Your task to perform on an android device: Open accessibility settings Image 0: 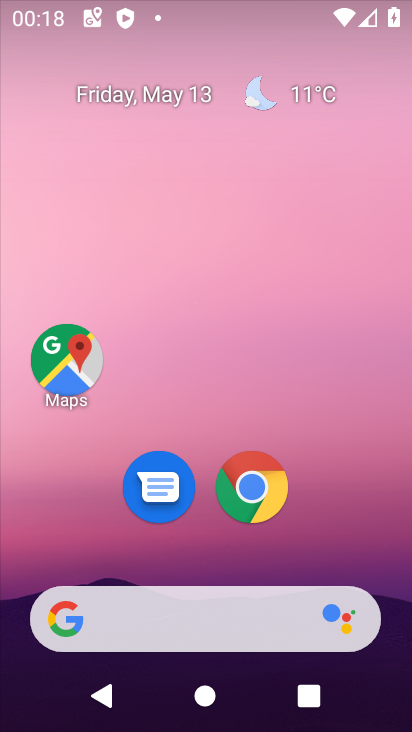
Step 0: click (253, 491)
Your task to perform on an android device: Open accessibility settings Image 1: 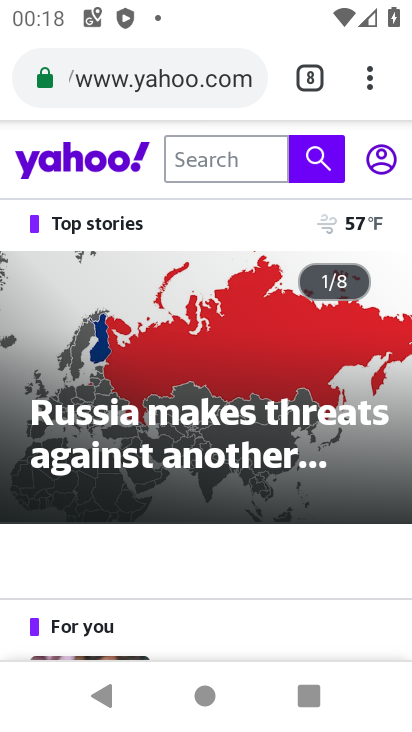
Step 1: press home button
Your task to perform on an android device: Open accessibility settings Image 2: 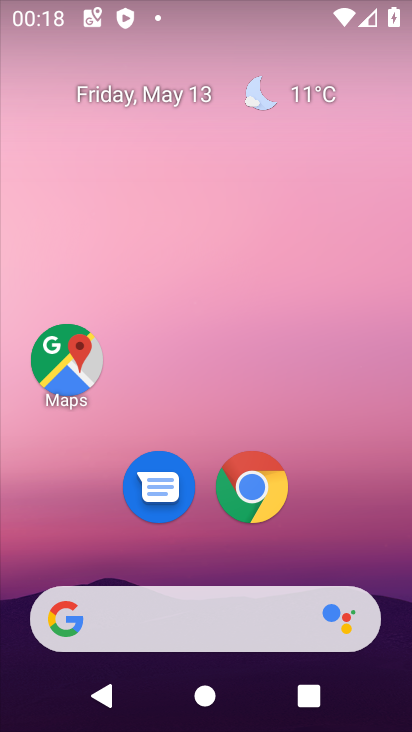
Step 2: drag from (186, 558) to (222, 35)
Your task to perform on an android device: Open accessibility settings Image 3: 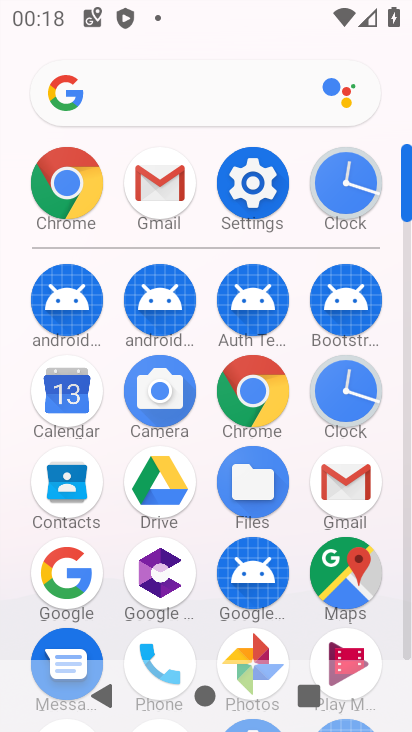
Step 3: click (257, 164)
Your task to perform on an android device: Open accessibility settings Image 4: 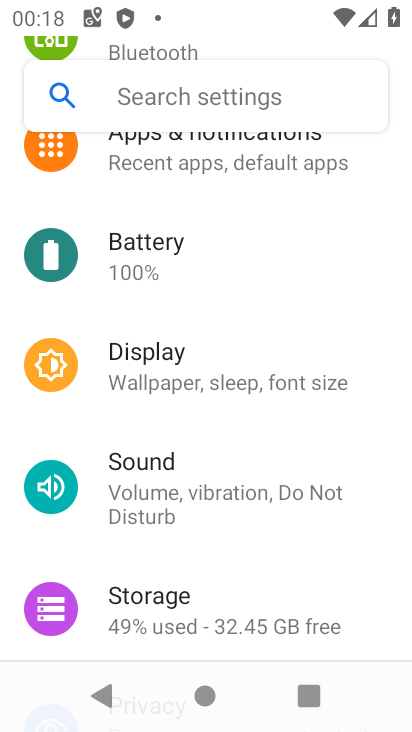
Step 4: drag from (116, 581) to (228, 201)
Your task to perform on an android device: Open accessibility settings Image 5: 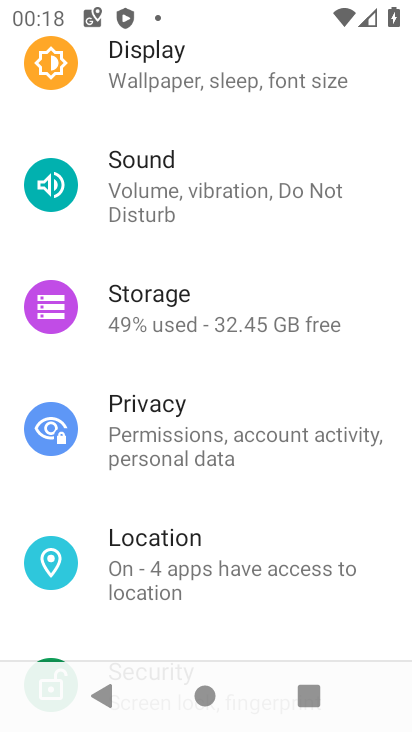
Step 5: drag from (130, 590) to (183, 288)
Your task to perform on an android device: Open accessibility settings Image 6: 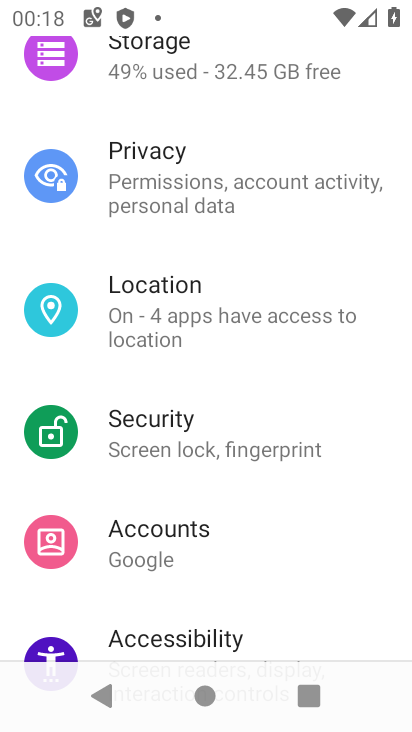
Step 6: click (134, 647)
Your task to perform on an android device: Open accessibility settings Image 7: 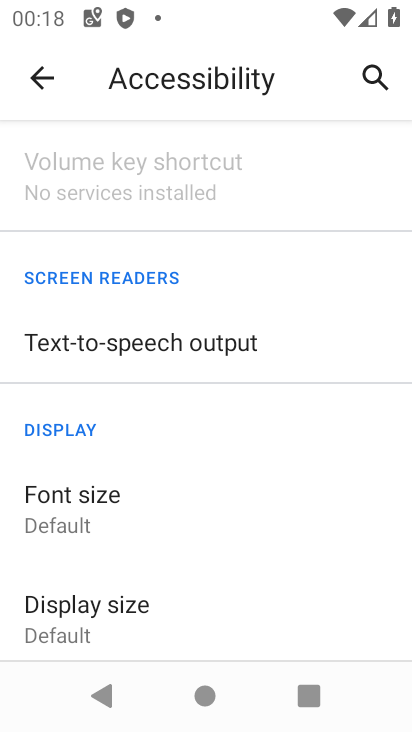
Step 7: task complete